Your task to perform on an android device: What's the weather going to be this weekend? Image 0: 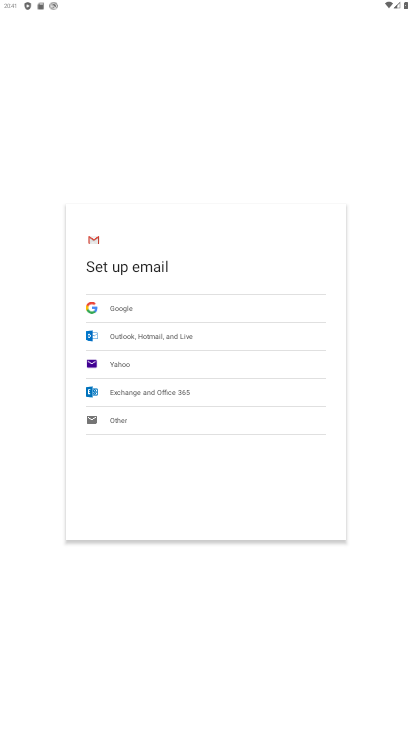
Step 0: press home button
Your task to perform on an android device: What's the weather going to be this weekend? Image 1: 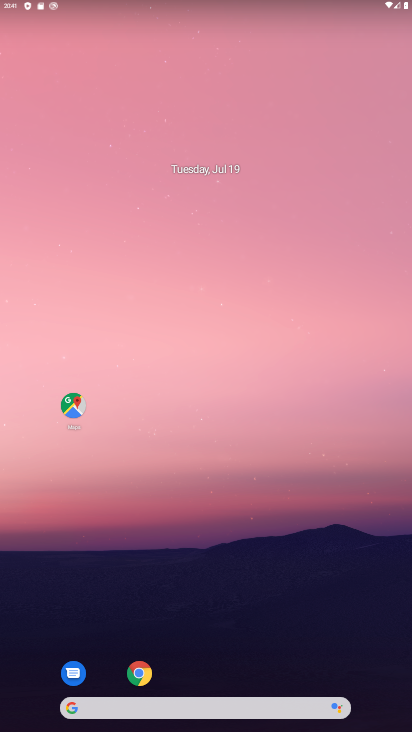
Step 1: click (175, 709)
Your task to perform on an android device: What's the weather going to be this weekend? Image 2: 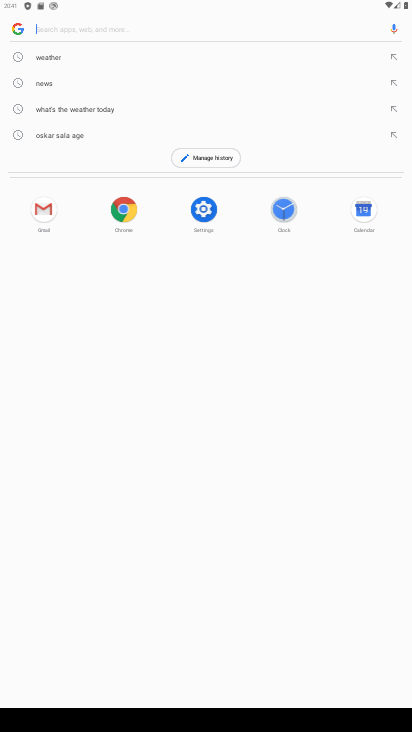
Step 2: click (64, 55)
Your task to perform on an android device: What's the weather going to be this weekend? Image 3: 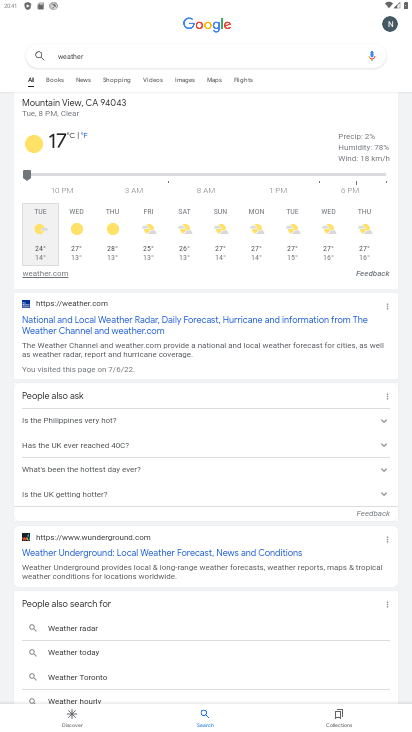
Step 3: task complete